Your task to perform on an android device: Go to Google maps Image 0: 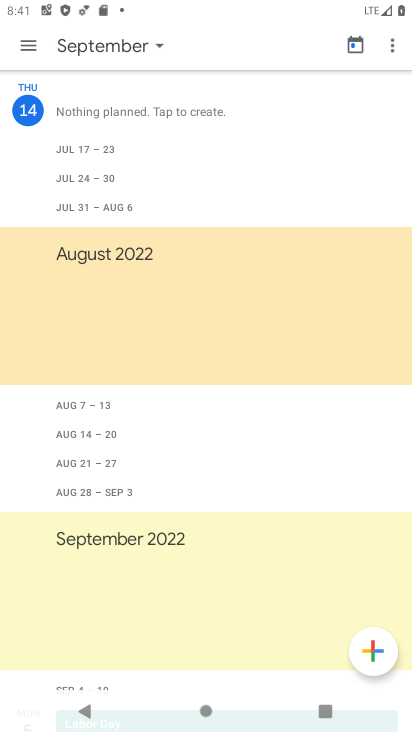
Step 0: press home button
Your task to perform on an android device: Go to Google maps Image 1: 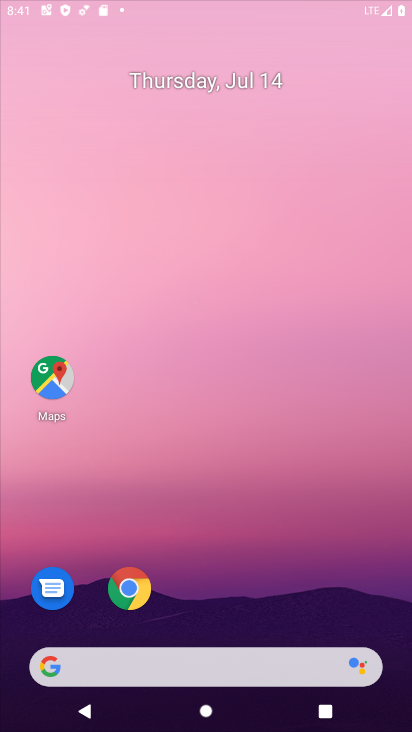
Step 1: drag from (390, 669) to (235, 110)
Your task to perform on an android device: Go to Google maps Image 2: 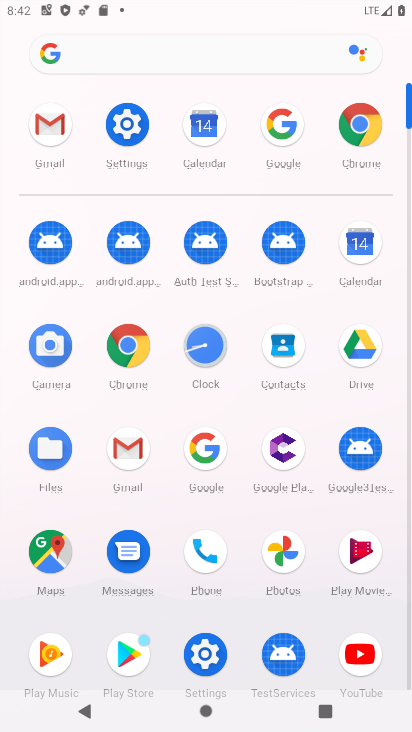
Step 2: click (205, 454)
Your task to perform on an android device: Go to Google maps Image 3: 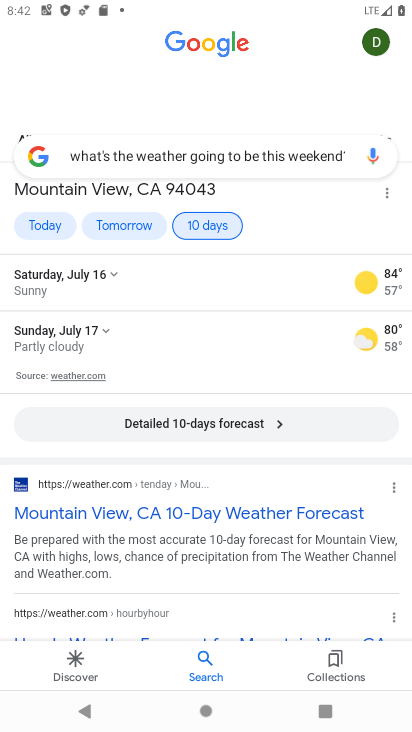
Step 3: task complete